Your task to perform on an android device: turn on translation in the chrome app Image 0: 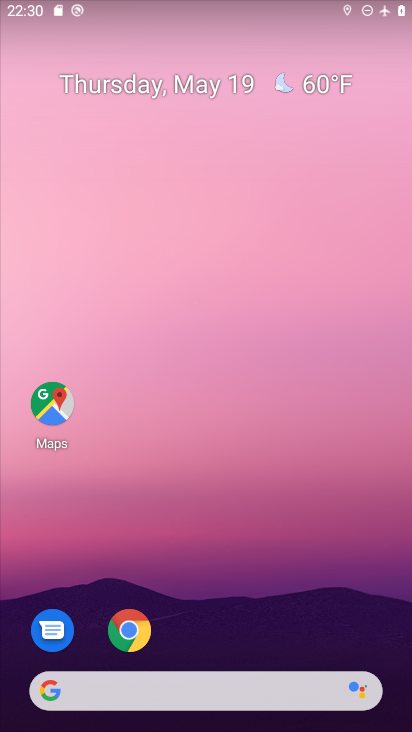
Step 0: click (131, 628)
Your task to perform on an android device: turn on translation in the chrome app Image 1: 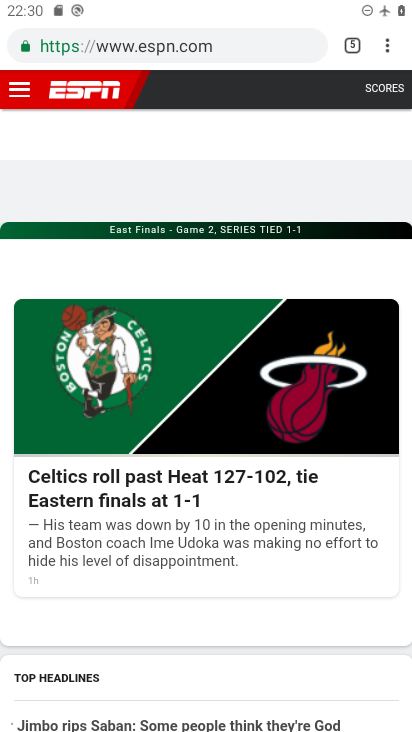
Step 1: click (390, 42)
Your task to perform on an android device: turn on translation in the chrome app Image 2: 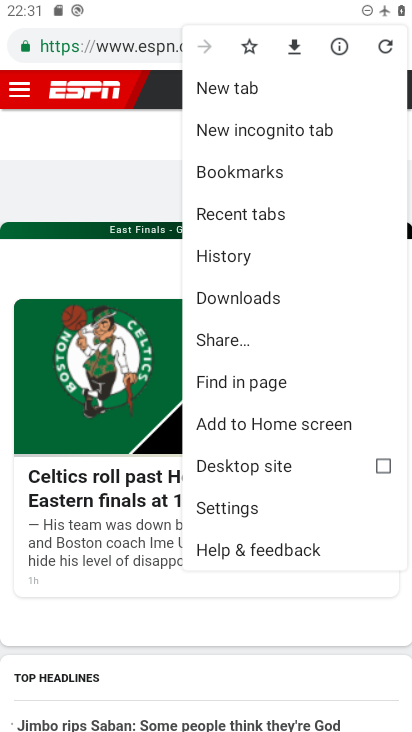
Step 2: click (256, 505)
Your task to perform on an android device: turn on translation in the chrome app Image 3: 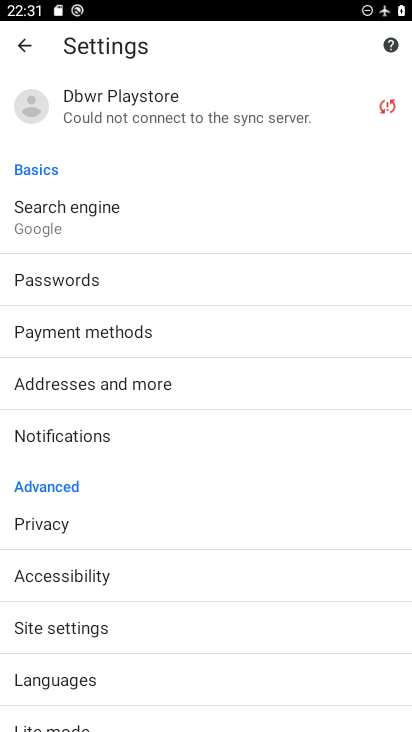
Step 3: drag from (233, 466) to (184, 134)
Your task to perform on an android device: turn on translation in the chrome app Image 4: 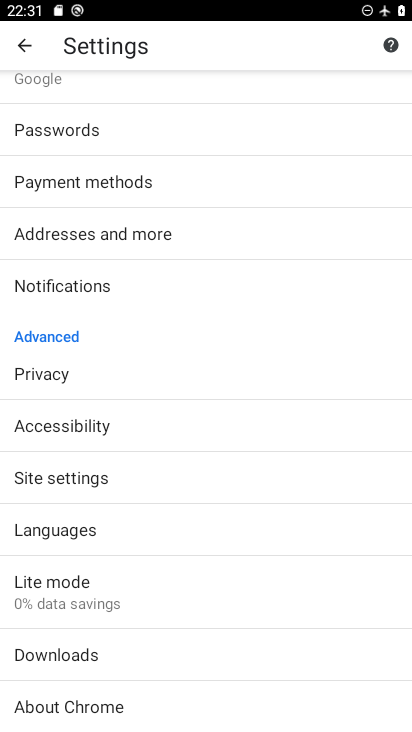
Step 4: click (80, 522)
Your task to perform on an android device: turn on translation in the chrome app Image 5: 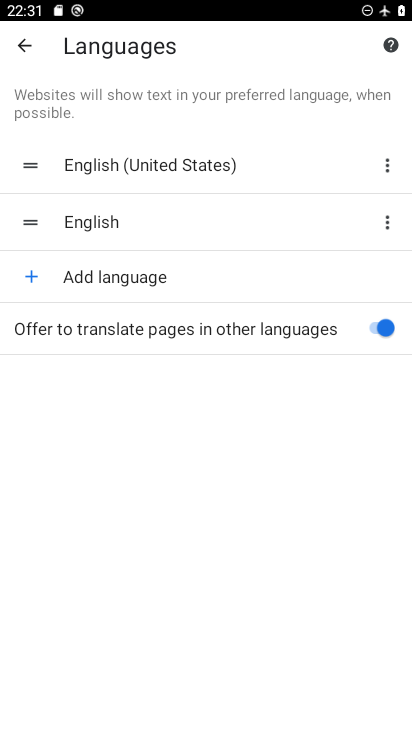
Step 5: task complete